Your task to perform on an android device: stop showing notifications on the lock screen Image 0: 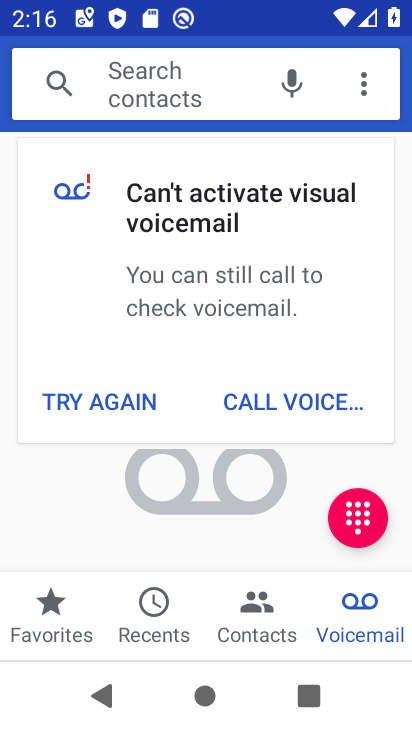
Step 0: press home button
Your task to perform on an android device: stop showing notifications on the lock screen Image 1: 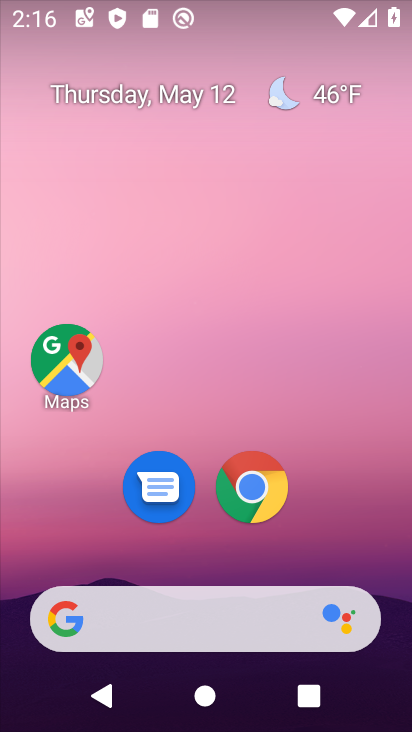
Step 1: drag from (373, 553) to (341, 75)
Your task to perform on an android device: stop showing notifications on the lock screen Image 2: 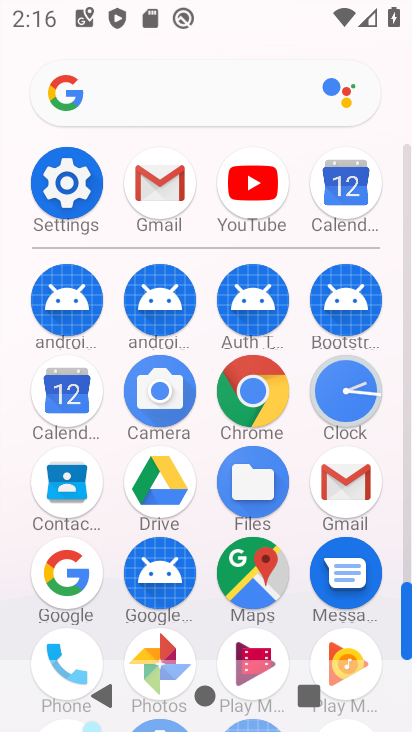
Step 2: click (63, 194)
Your task to perform on an android device: stop showing notifications on the lock screen Image 3: 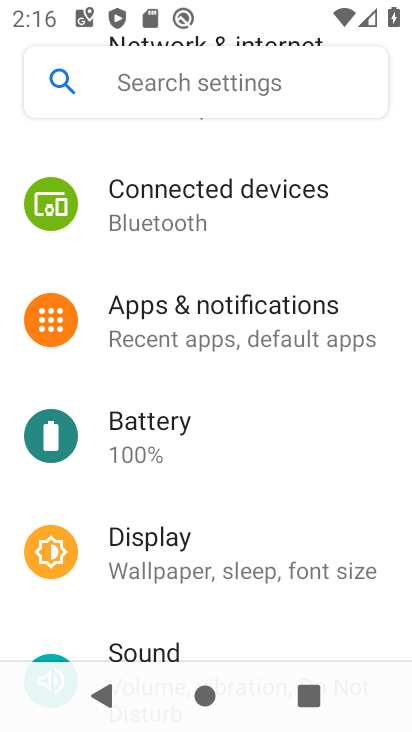
Step 3: click (229, 306)
Your task to perform on an android device: stop showing notifications on the lock screen Image 4: 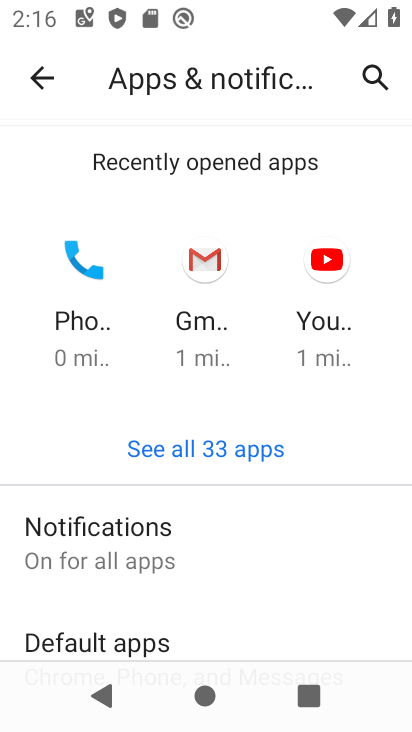
Step 4: click (136, 537)
Your task to perform on an android device: stop showing notifications on the lock screen Image 5: 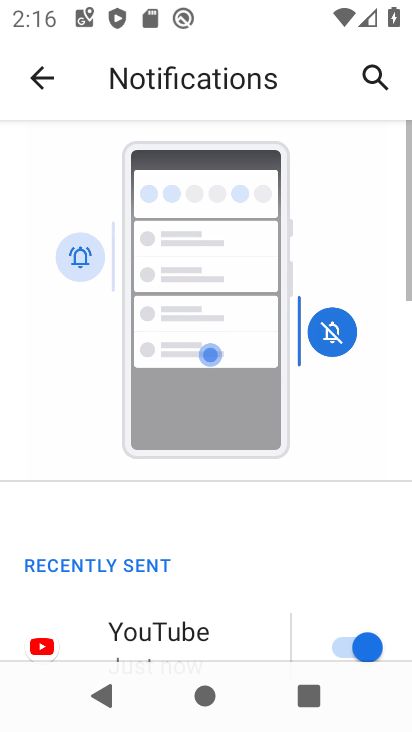
Step 5: drag from (147, 581) to (209, 157)
Your task to perform on an android device: stop showing notifications on the lock screen Image 6: 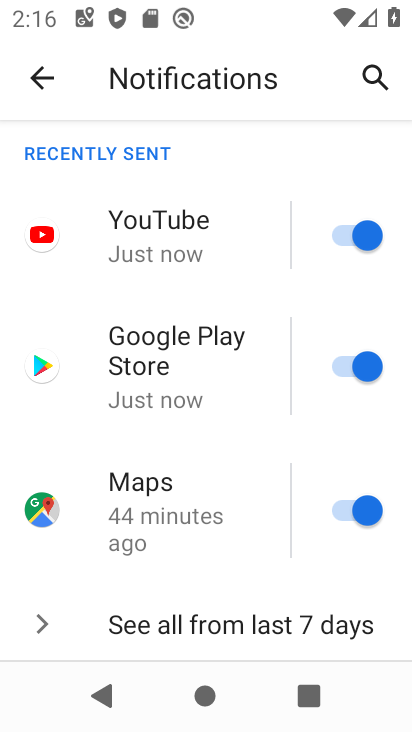
Step 6: drag from (121, 575) to (190, 171)
Your task to perform on an android device: stop showing notifications on the lock screen Image 7: 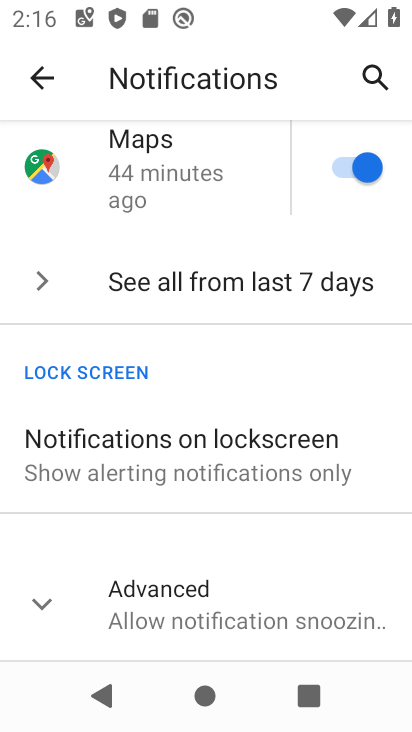
Step 7: click (106, 465)
Your task to perform on an android device: stop showing notifications on the lock screen Image 8: 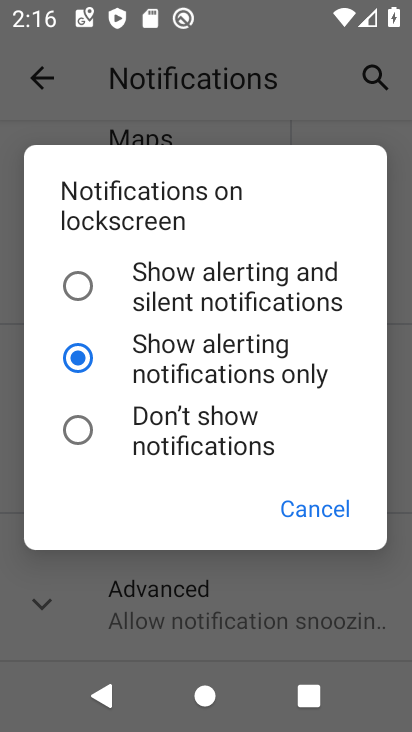
Step 8: click (125, 426)
Your task to perform on an android device: stop showing notifications on the lock screen Image 9: 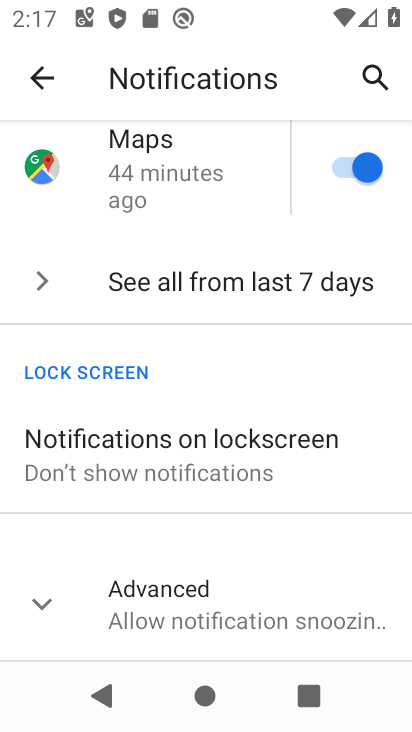
Step 9: task complete